Your task to perform on an android device: Open the calendar app, open the side menu, and click the "Day" option Image 0: 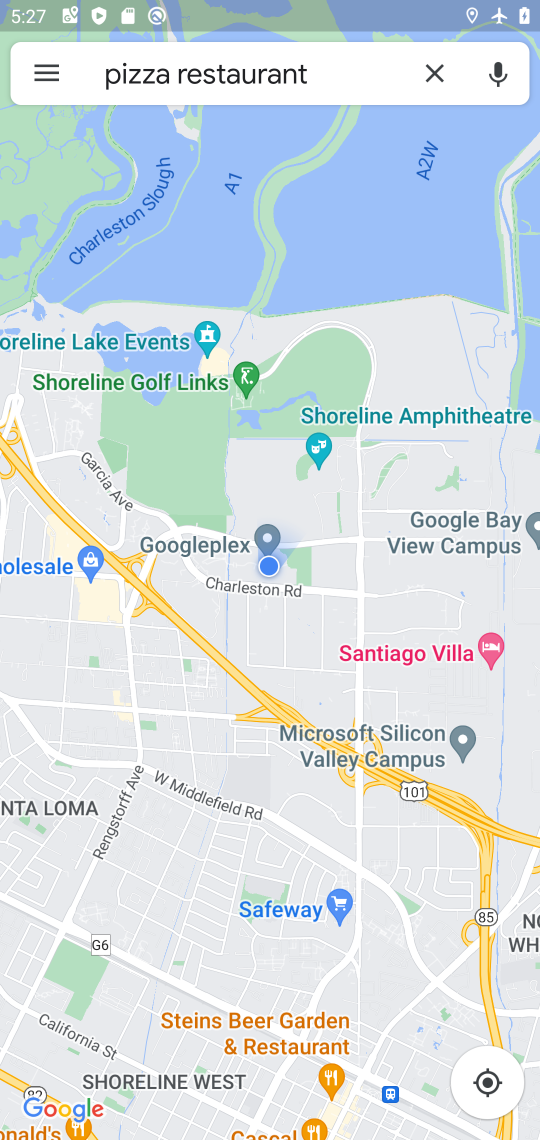
Step 0: press home button
Your task to perform on an android device: Open the calendar app, open the side menu, and click the "Day" option Image 1: 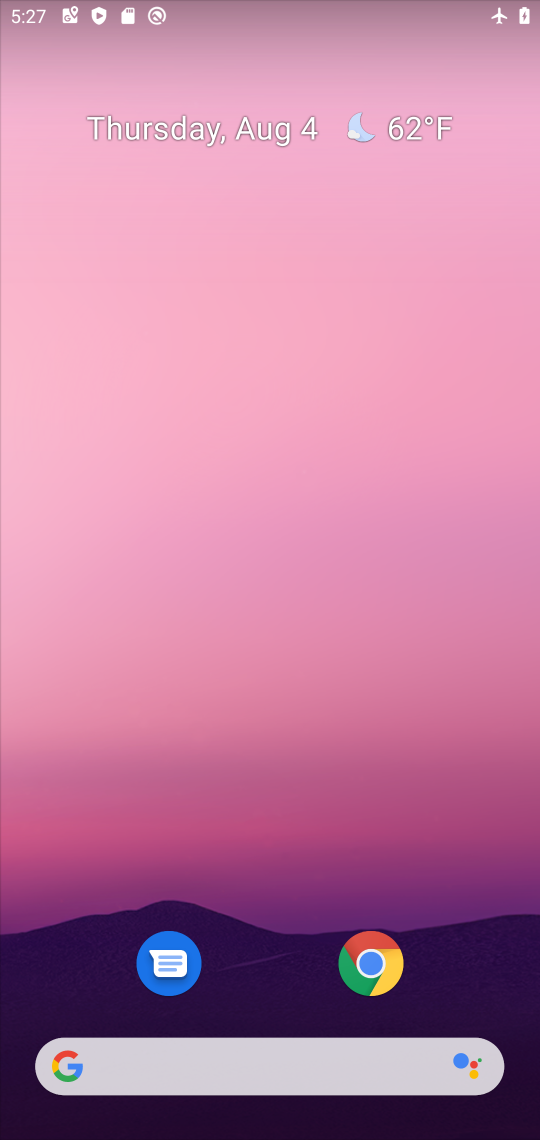
Step 1: drag from (262, 805) to (242, 11)
Your task to perform on an android device: Open the calendar app, open the side menu, and click the "Day" option Image 2: 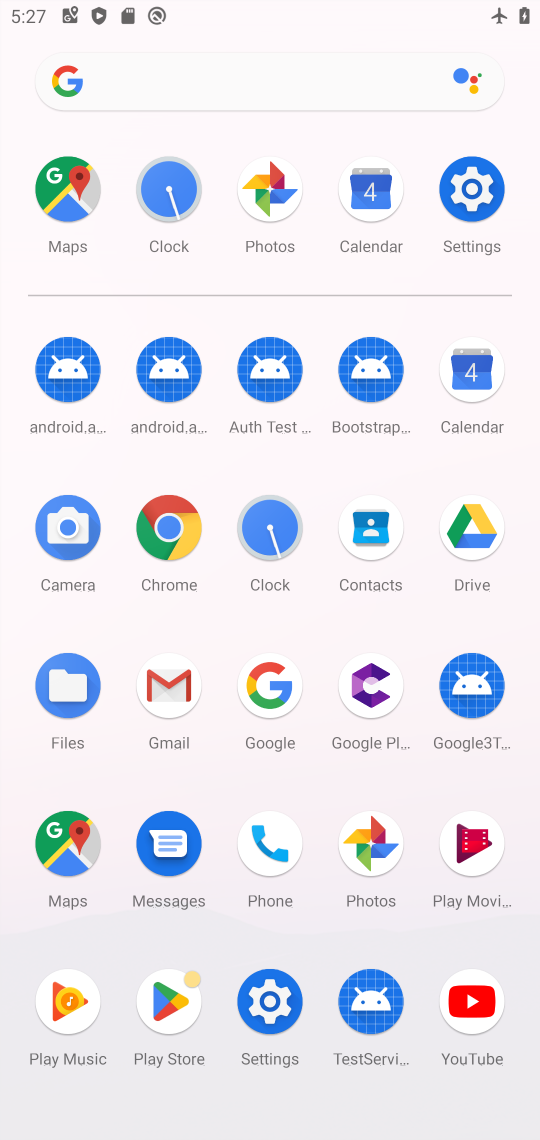
Step 2: click (474, 362)
Your task to perform on an android device: Open the calendar app, open the side menu, and click the "Day" option Image 3: 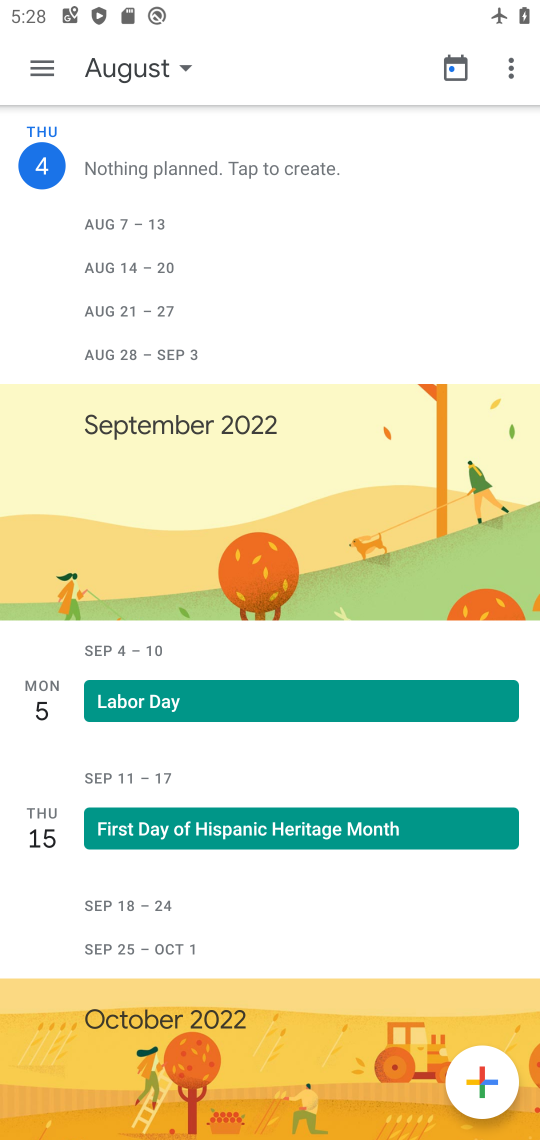
Step 3: click (36, 71)
Your task to perform on an android device: Open the calendar app, open the side menu, and click the "Day" option Image 4: 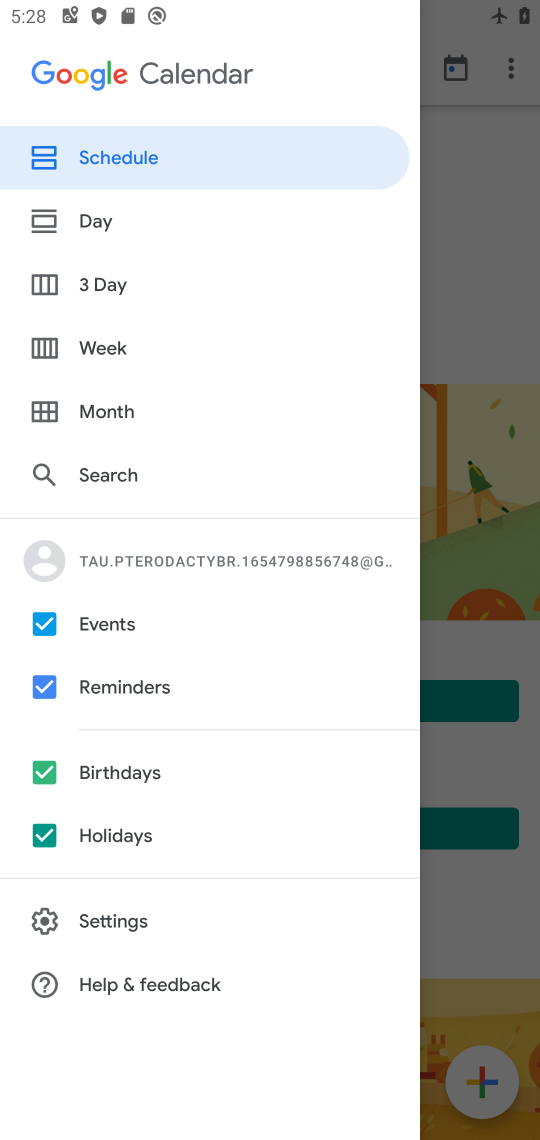
Step 4: click (94, 217)
Your task to perform on an android device: Open the calendar app, open the side menu, and click the "Day" option Image 5: 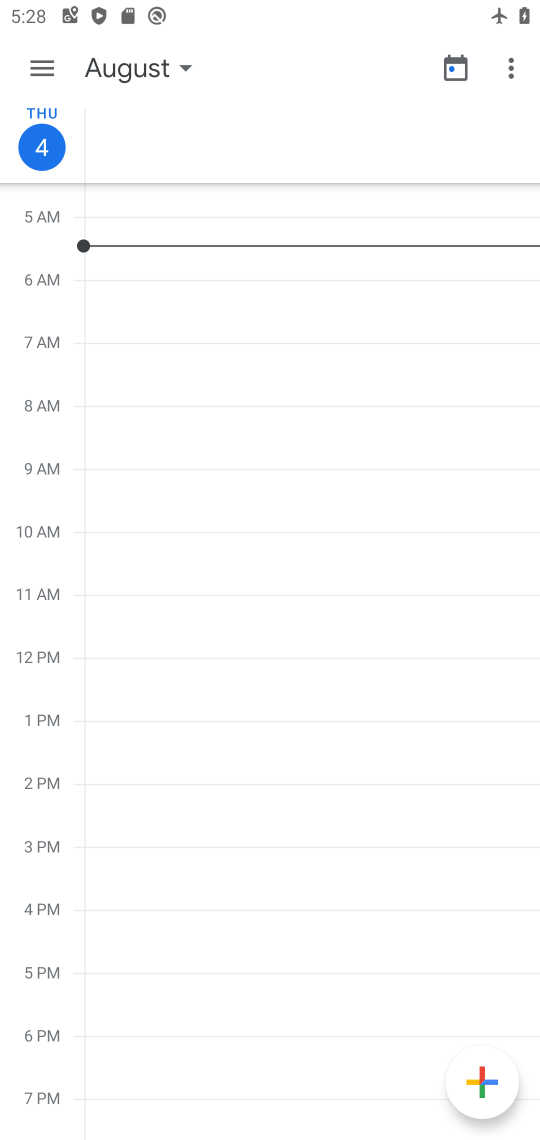
Step 5: task complete